Your task to perform on an android device: Go to accessibility settings Image 0: 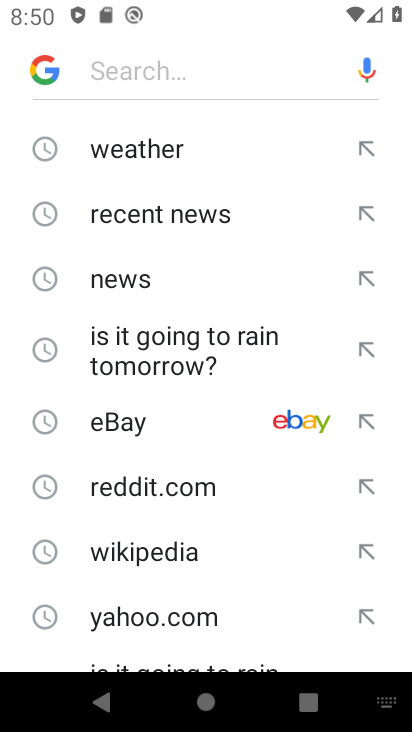
Step 0: press back button
Your task to perform on an android device: Go to accessibility settings Image 1: 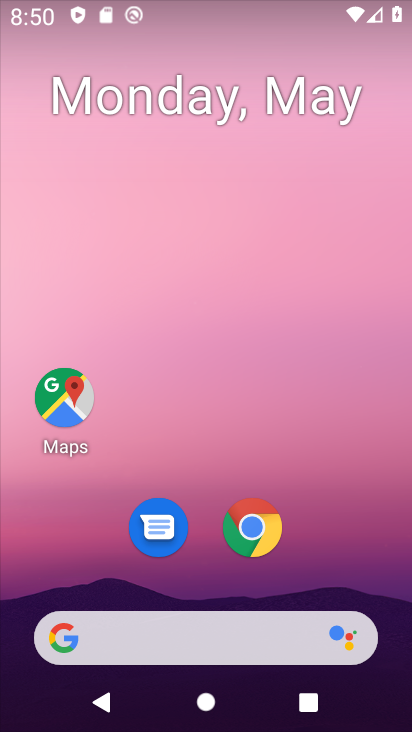
Step 1: drag from (342, 571) to (256, 13)
Your task to perform on an android device: Go to accessibility settings Image 2: 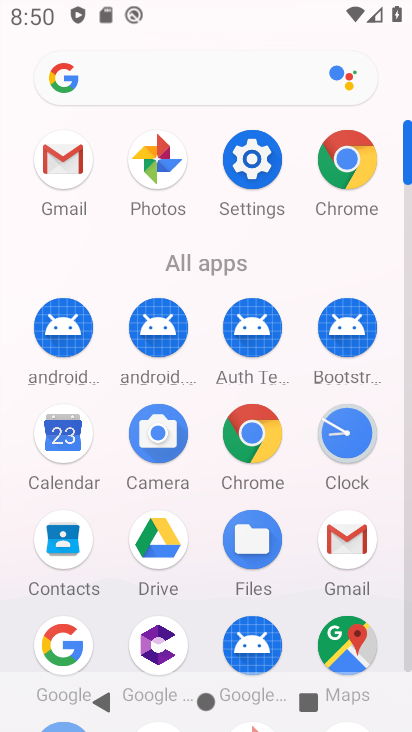
Step 2: click (252, 158)
Your task to perform on an android device: Go to accessibility settings Image 3: 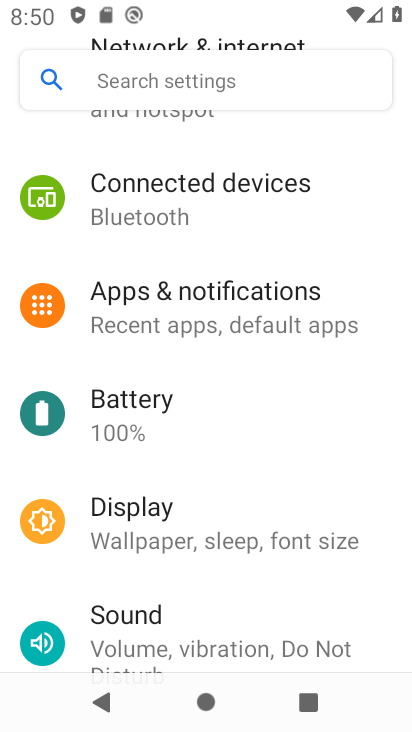
Step 3: drag from (259, 596) to (279, 89)
Your task to perform on an android device: Go to accessibility settings Image 4: 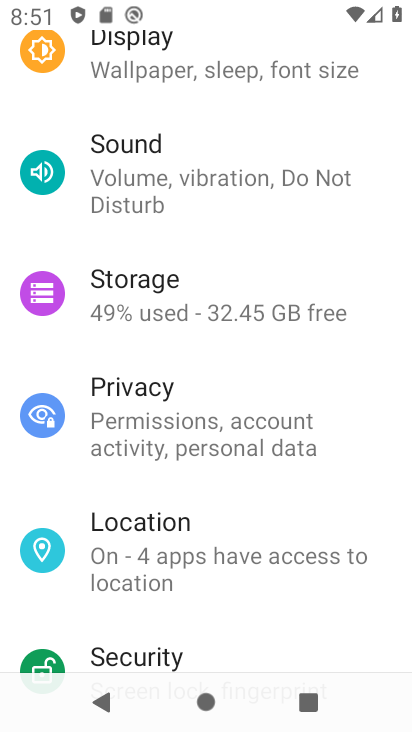
Step 4: drag from (231, 552) to (253, 89)
Your task to perform on an android device: Go to accessibility settings Image 5: 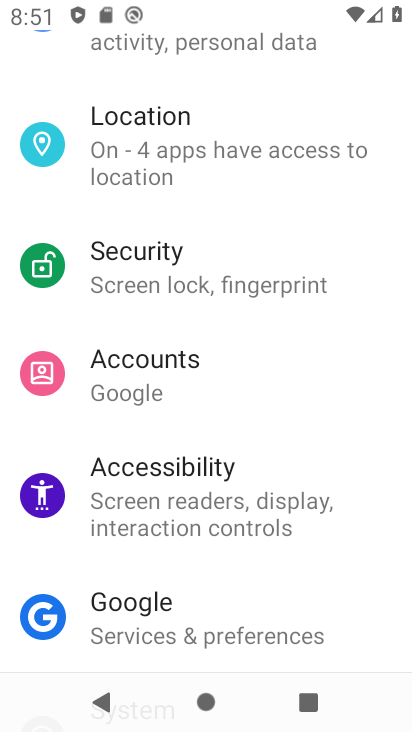
Step 5: drag from (261, 531) to (274, 142)
Your task to perform on an android device: Go to accessibility settings Image 6: 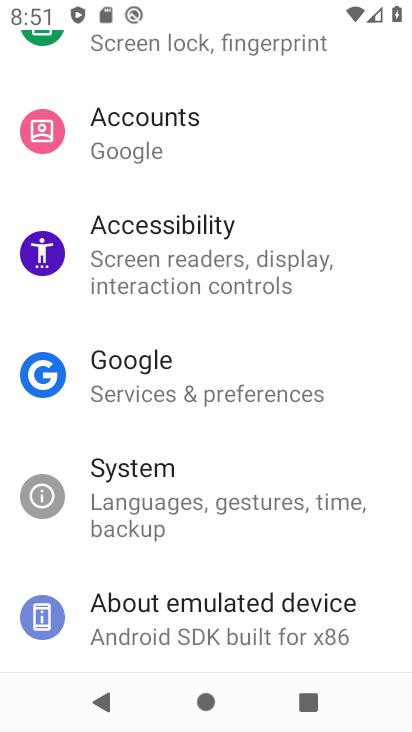
Step 6: drag from (252, 616) to (272, 213)
Your task to perform on an android device: Go to accessibility settings Image 7: 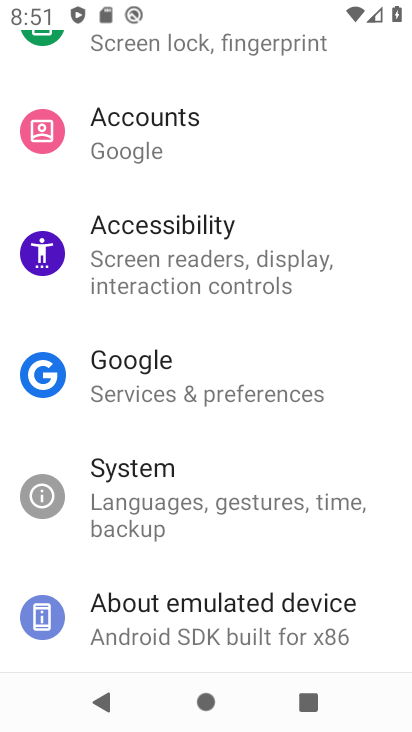
Step 7: click (218, 235)
Your task to perform on an android device: Go to accessibility settings Image 8: 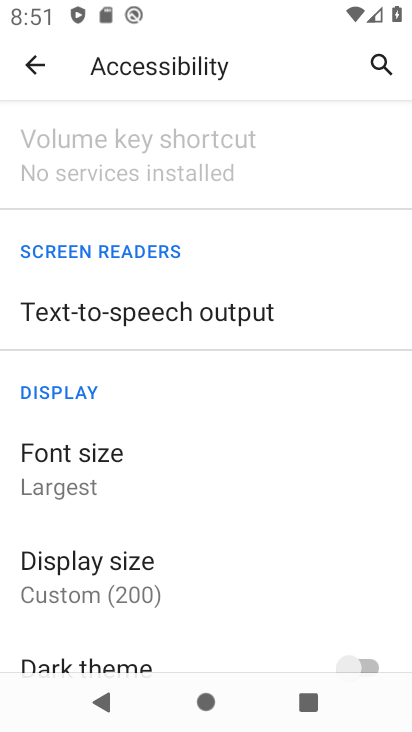
Step 8: task complete